Your task to perform on an android device: turn off smart reply in the gmail app Image 0: 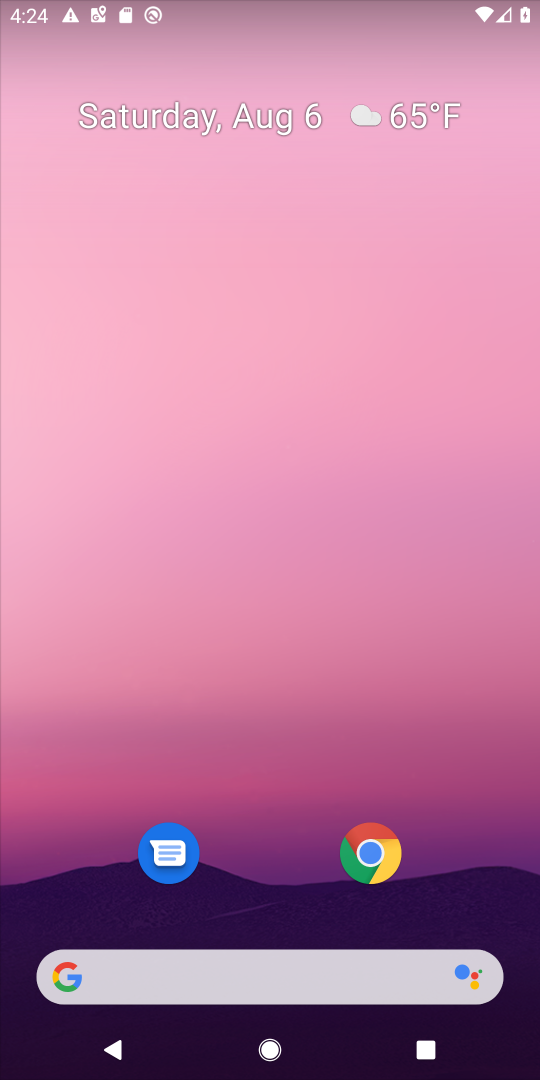
Step 0: drag from (272, 855) to (392, 56)
Your task to perform on an android device: turn off smart reply in the gmail app Image 1: 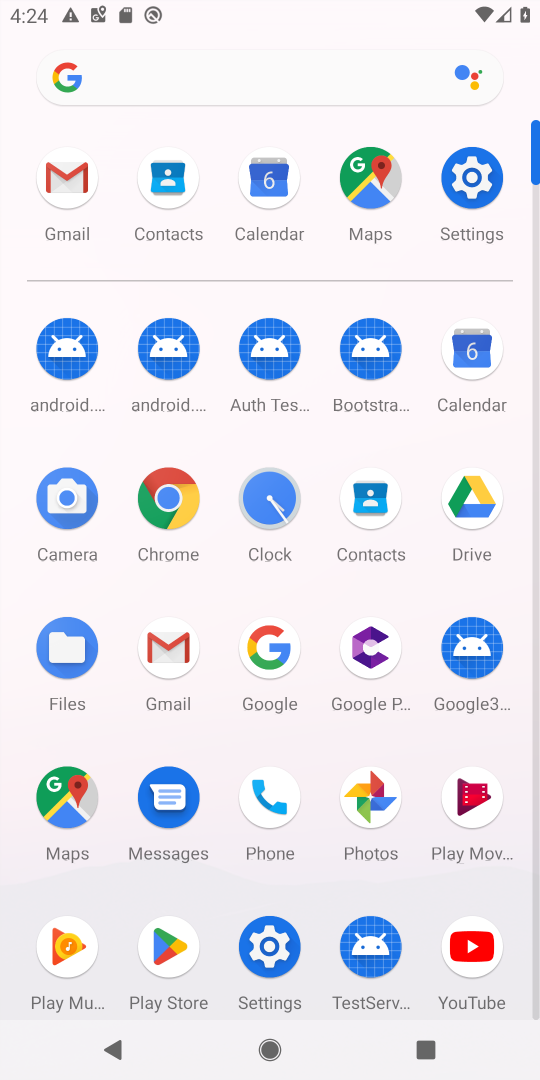
Step 1: click (65, 190)
Your task to perform on an android device: turn off smart reply in the gmail app Image 2: 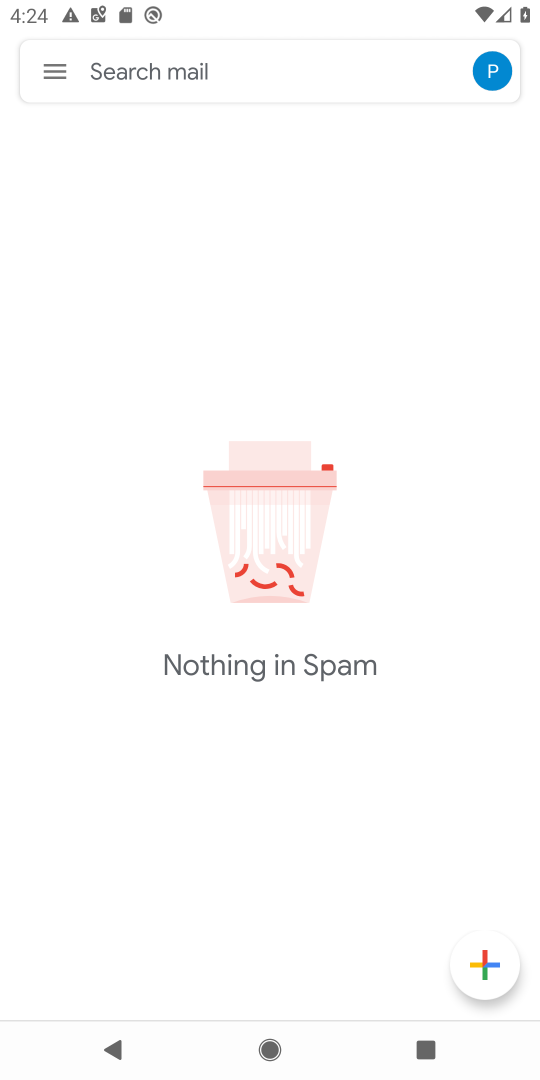
Step 2: click (60, 60)
Your task to perform on an android device: turn off smart reply in the gmail app Image 3: 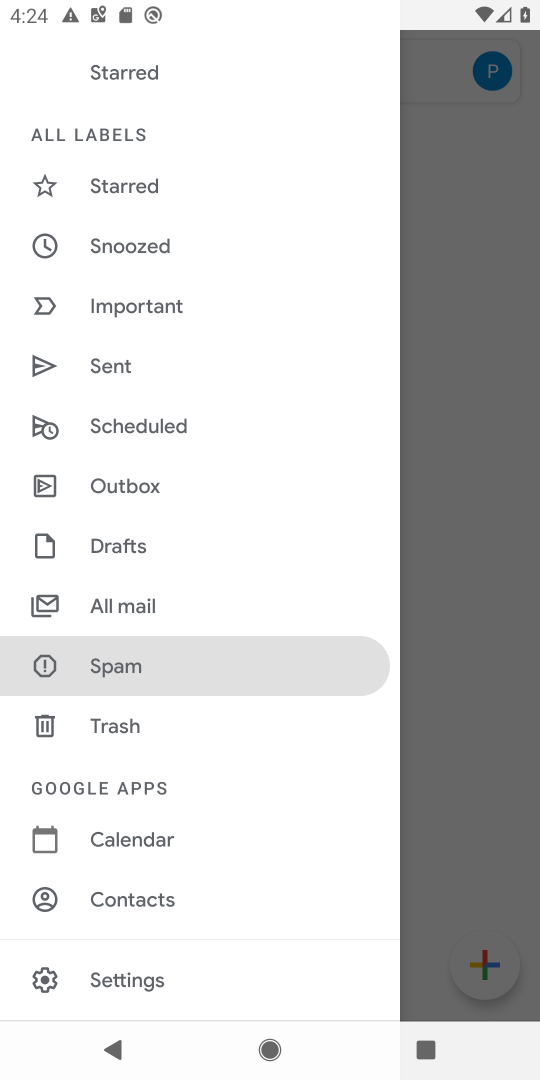
Step 3: click (154, 972)
Your task to perform on an android device: turn off smart reply in the gmail app Image 4: 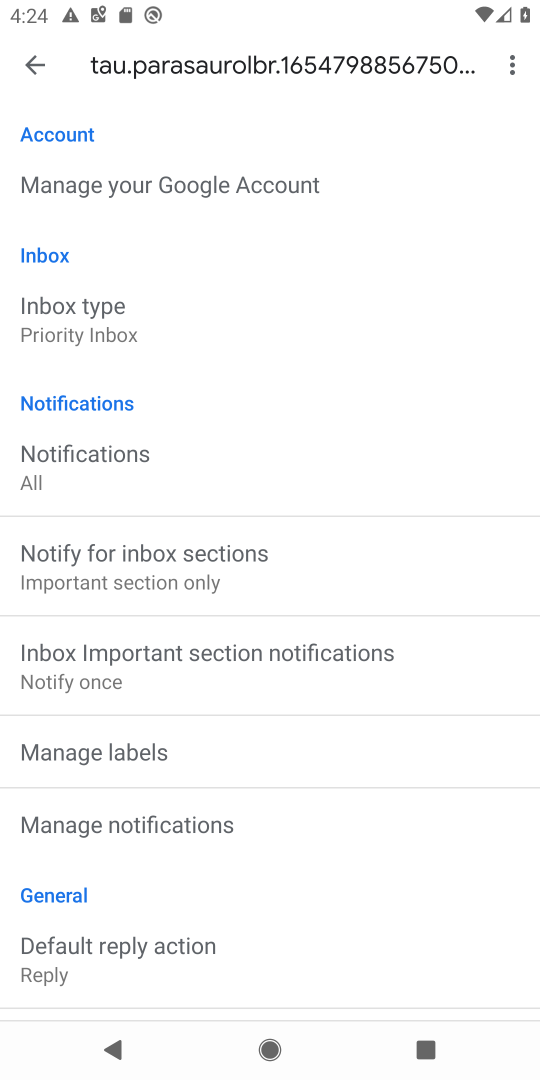
Step 4: drag from (130, 951) to (254, 180)
Your task to perform on an android device: turn off smart reply in the gmail app Image 5: 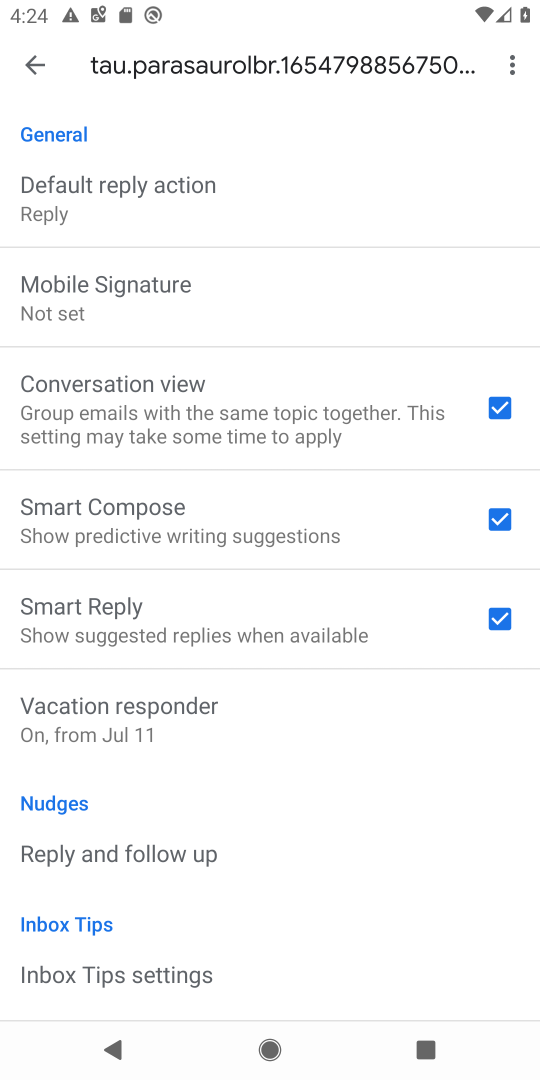
Step 5: click (494, 620)
Your task to perform on an android device: turn off smart reply in the gmail app Image 6: 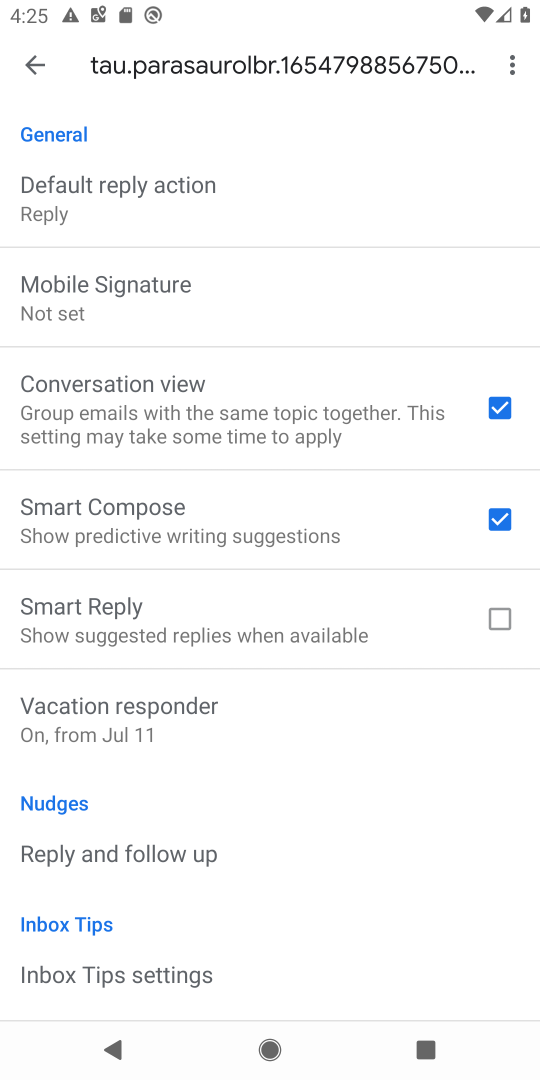
Step 6: task complete